Your task to perform on an android device: open wifi settings Image 0: 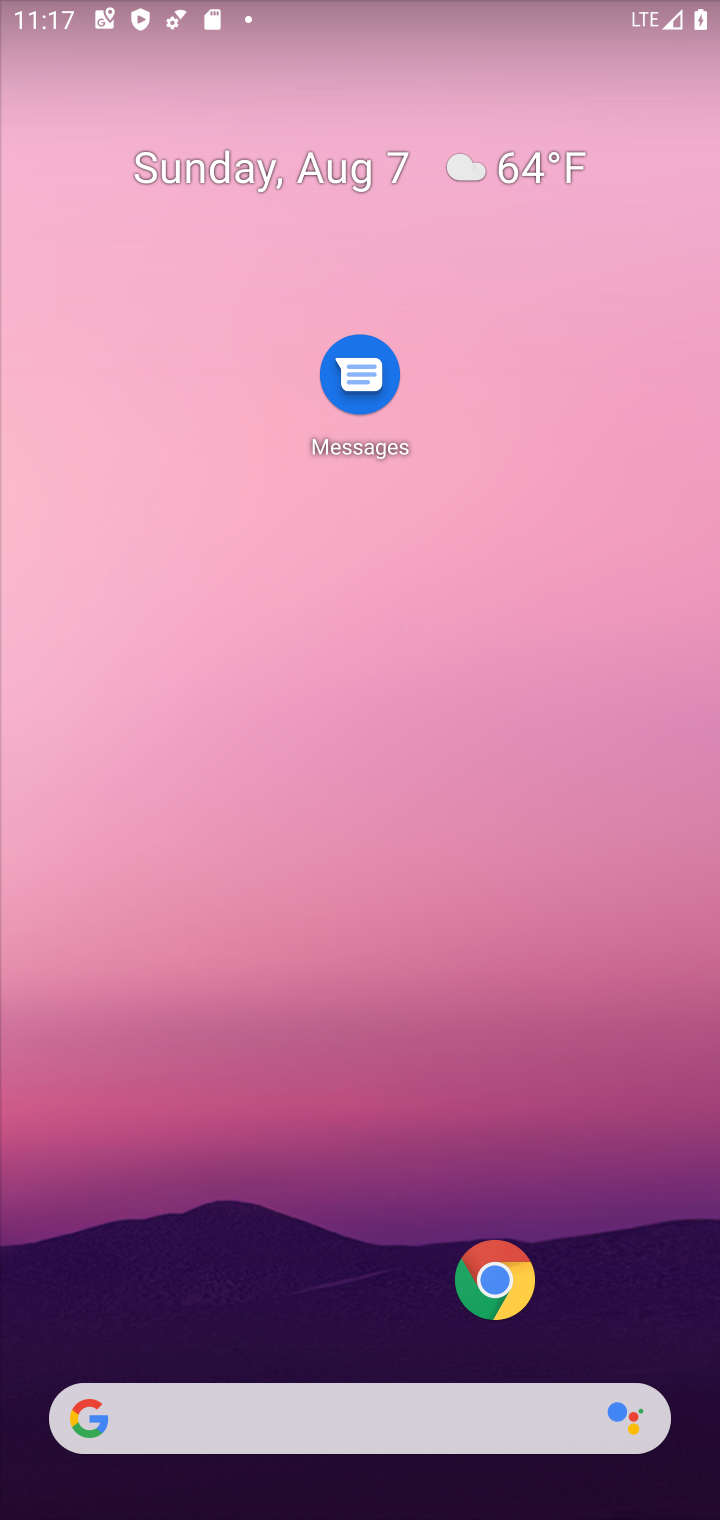
Step 0: drag from (111, 23) to (263, 1113)
Your task to perform on an android device: open wifi settings Image 1: 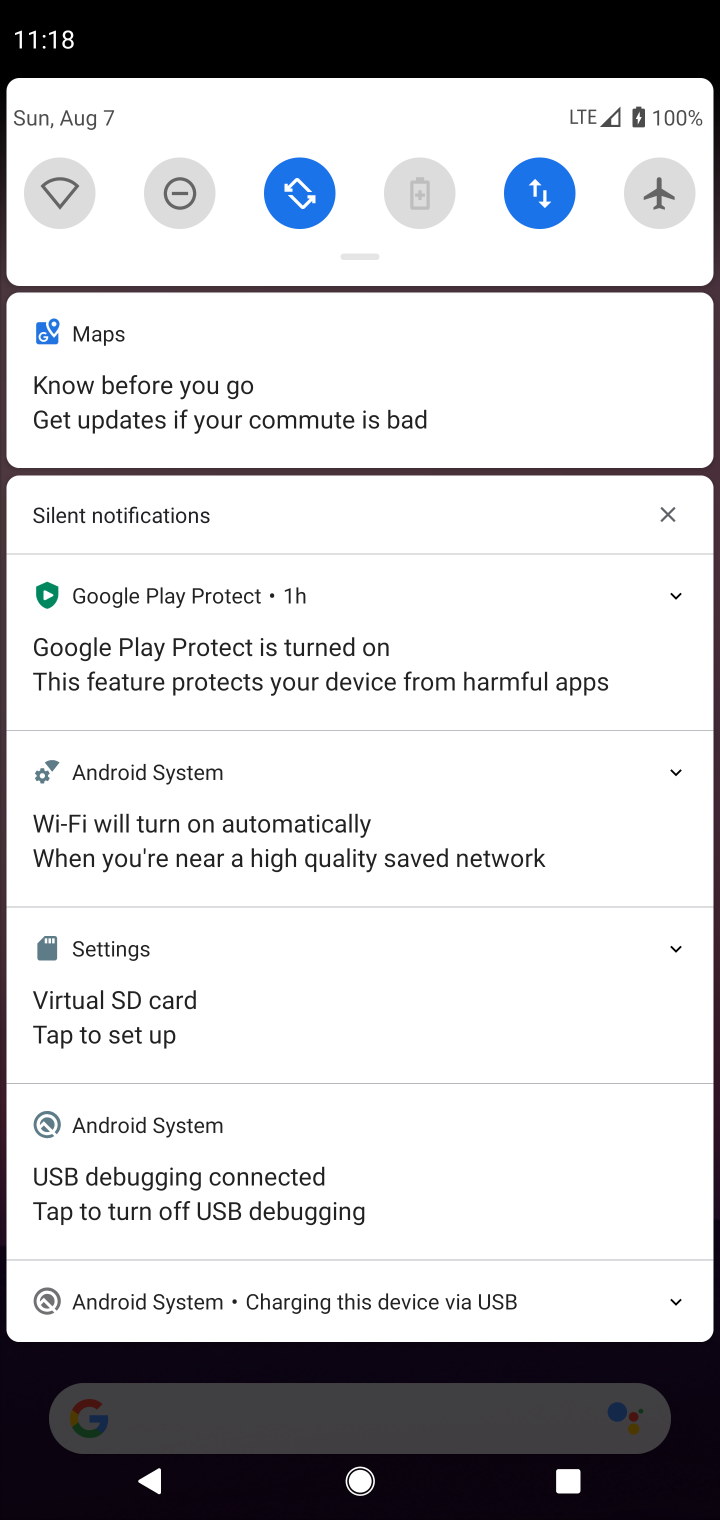
Step 1: click (67, 211)
Your task to perform on an android device: open wifi settings Image 2: 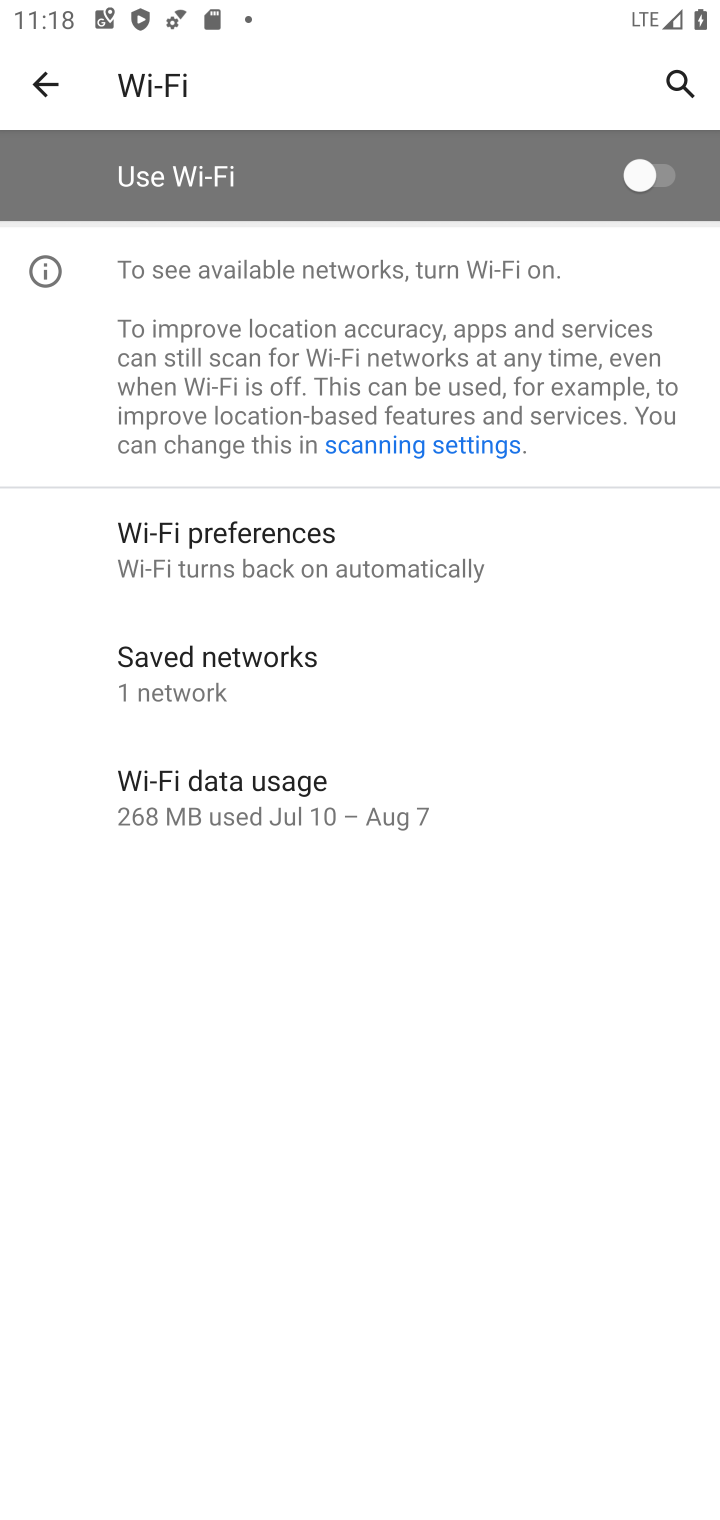
Step 2: task complete